Your task to perform on an android device: Is it going to rain today? Image 0: 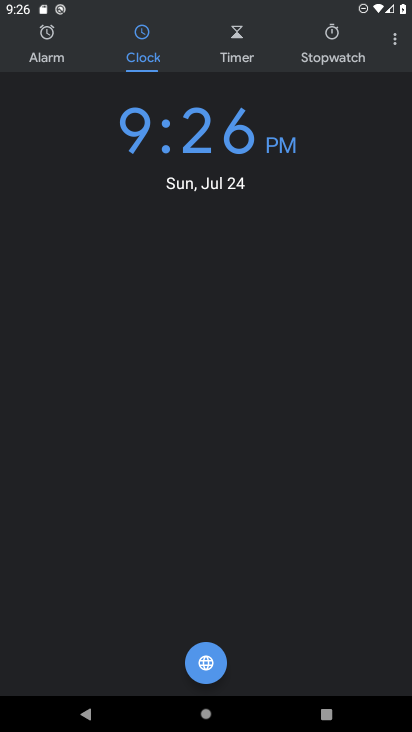
Step 0: drag from (259, 462) to (270, 232)
Your task to perform on an android device: Is it going to rain today? Image 1: 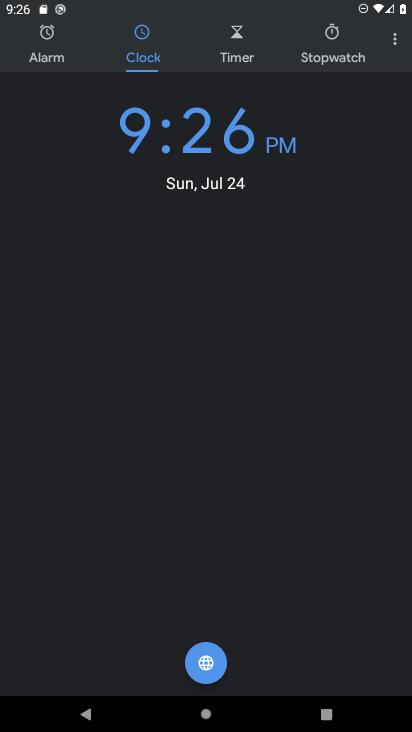
Step 1: press home button
Your task to perform on an android device: Is it going to rain today? Image 2: 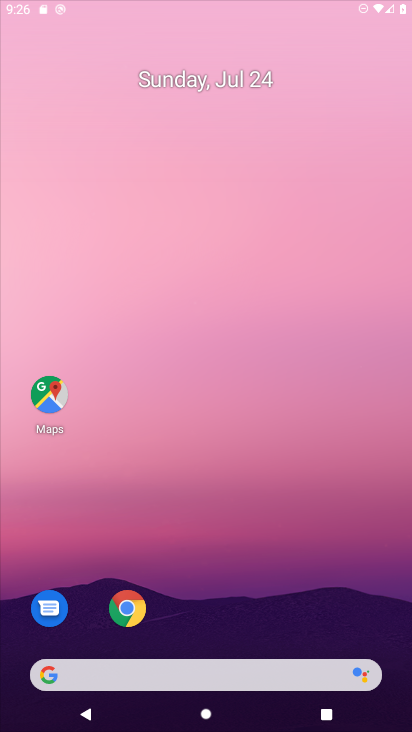
Step 2: drag from (134, 573) to (178, 237)
Your task to perform on an android device: Is it going to rain today? Image 3: 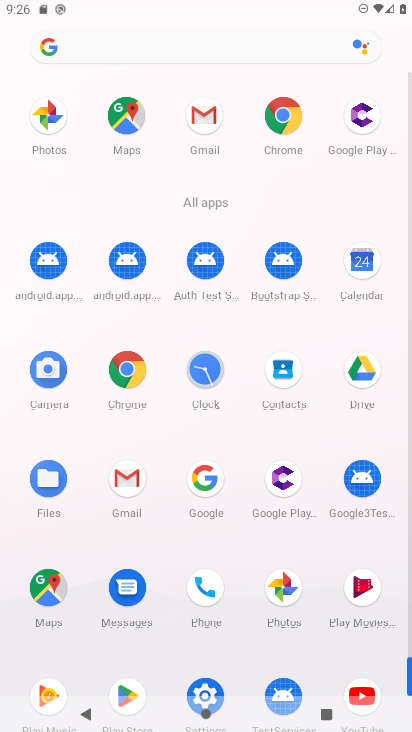
Step 3: drag from (219, 640) to (249, 158)
Your task to perform on an android device: Is it going to rain today? Image 4: 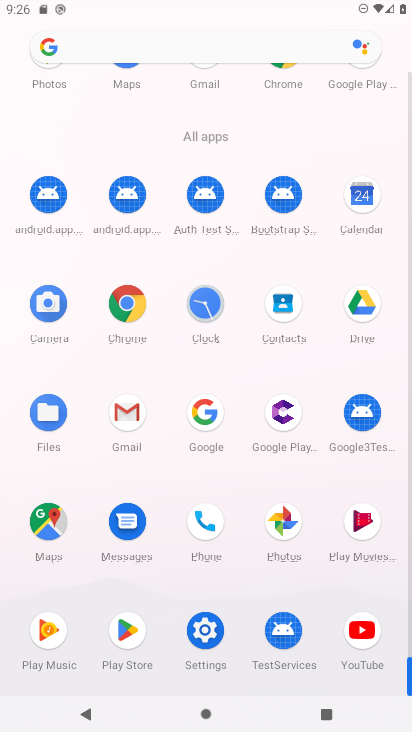
Step 4: click (137, 35)
Your task to perform on an android device: Is it going to rain today? Image 5: 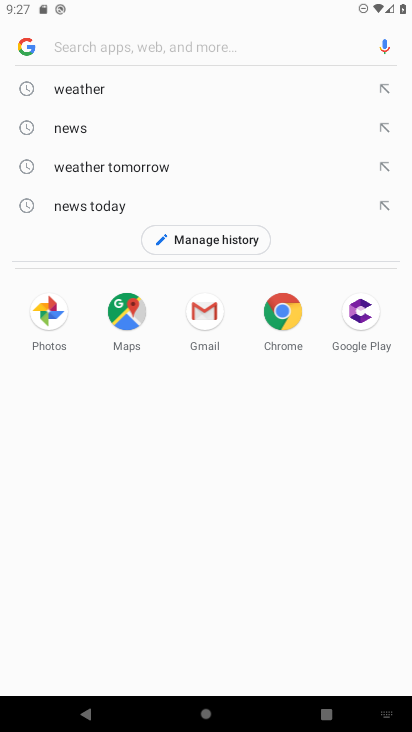
Step 5: type "Is it going to rain today?"
Your task to perform on an android device: Is it going to rain today? Image 6: 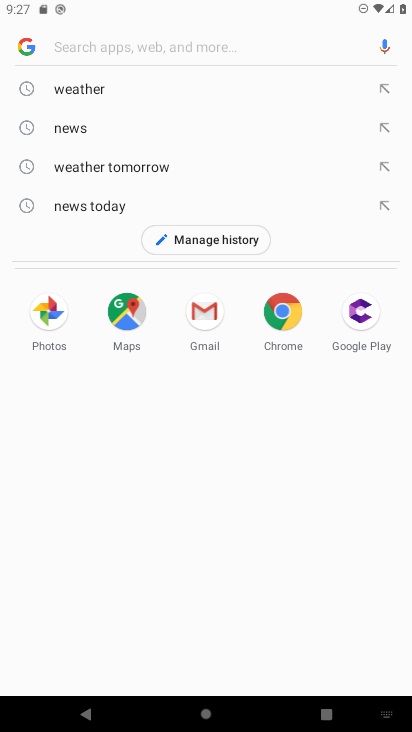
Step 6: click (94, 39)
Your task to perform on an android device: Is it going to rain today? Image 7: 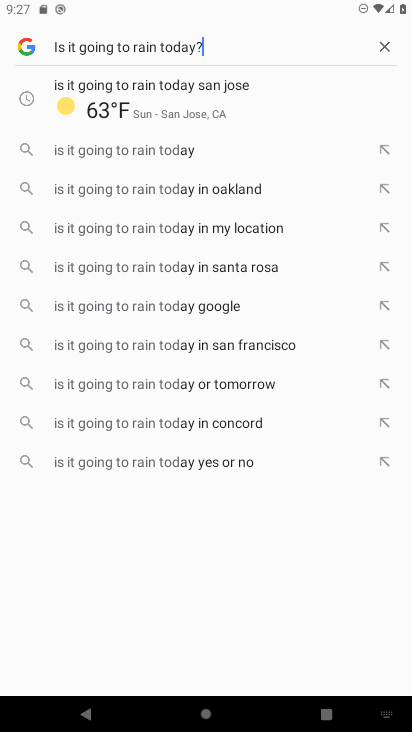
Step 7: type ""
Your task to perform on an android device: Is it going to rain today? Image 8: 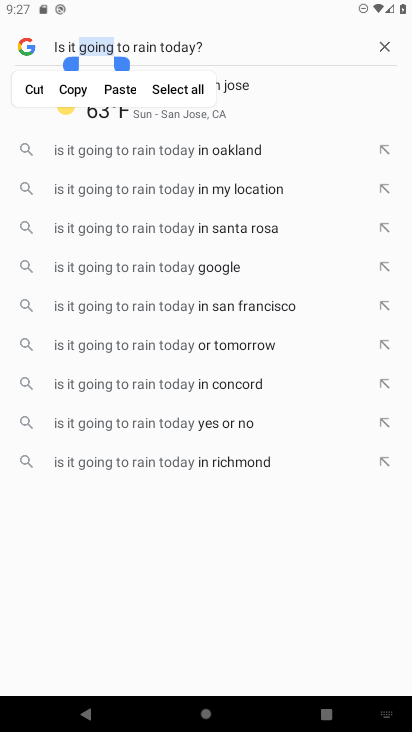
Step 8: click (136, 82)
Your task to perform on an android device: Is it going to rain today? Image 9: 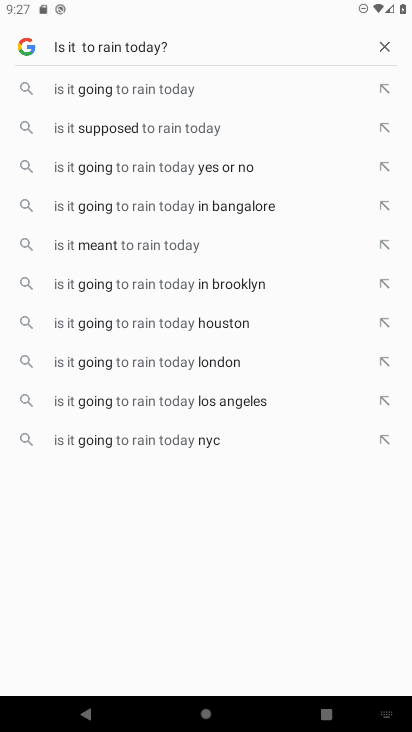
Step 9: click (380, 40)
Your task to perform on an android device: Is it going to rain today? Image 10: 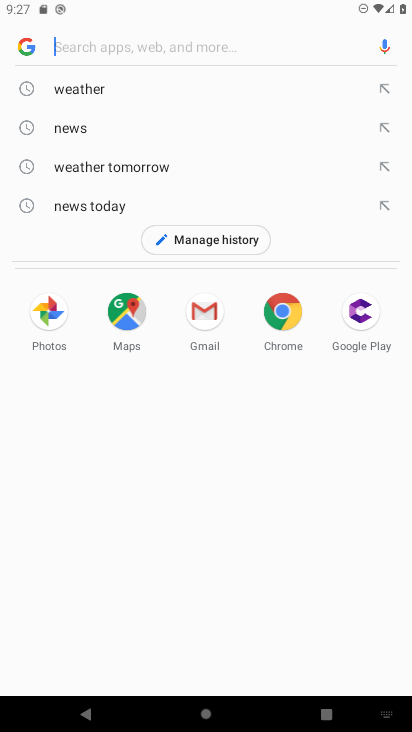
Step 10: click (139, 55)
Your task to perform on an android device: Is it going to rain today? Image 11: 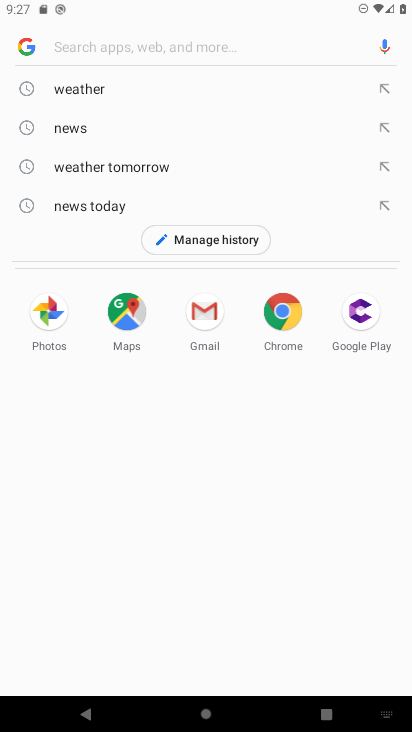
Step 11: type "Is it going to rain today?"
Your task to perform on an android device: Is it going to rain today? Image 12: 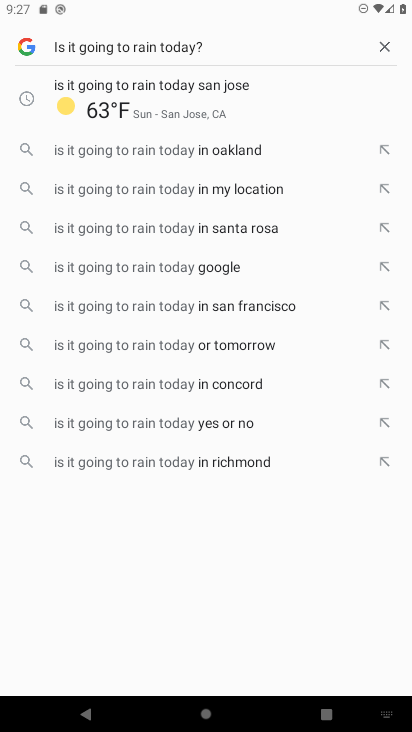
Step 12: click (138, 93)
Your task to perform on an android device: Is it going to rain today? Image 13: 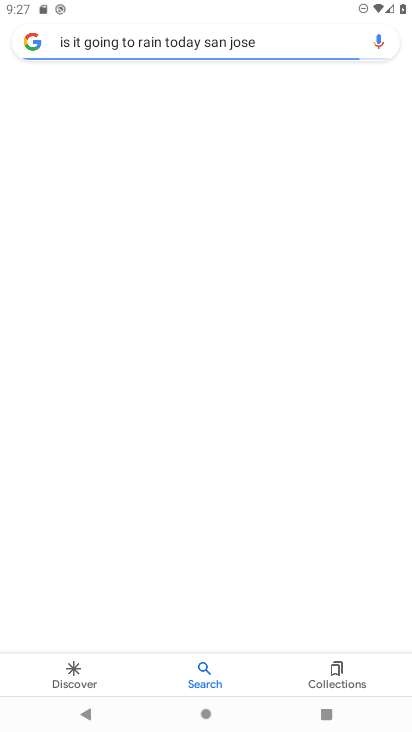
Step 13: task complete